Your task to perform on an android device: set the stopwatch Image 0: 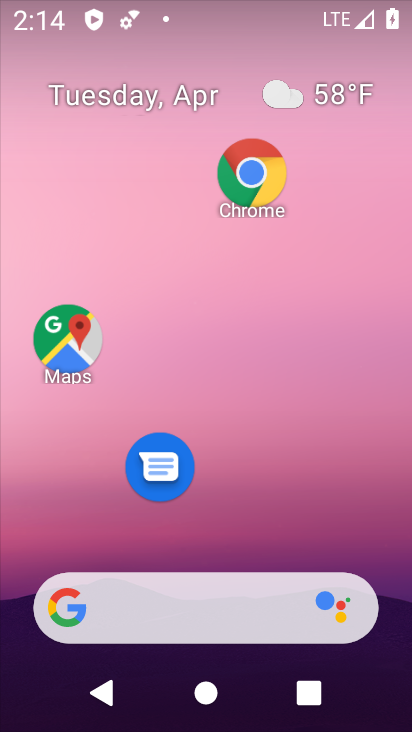
Step 0: drag from (327, 421) to (320, 60)
Your task to perform on an android device: set the stopwatch Image 1: 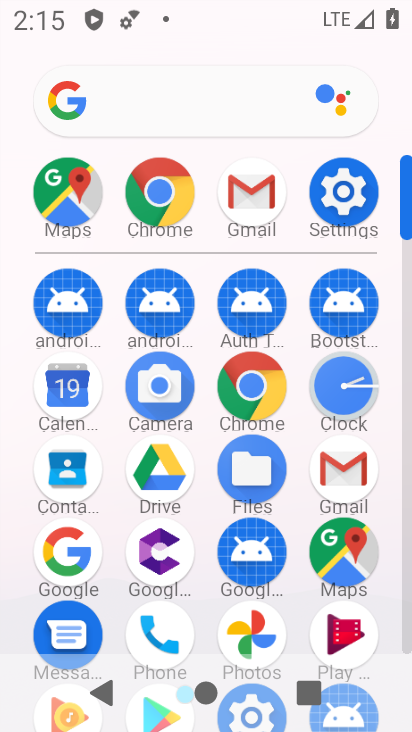
Step 1: click (326, 389)
Your task to perform on an android device: set the stopwatch Image 2: 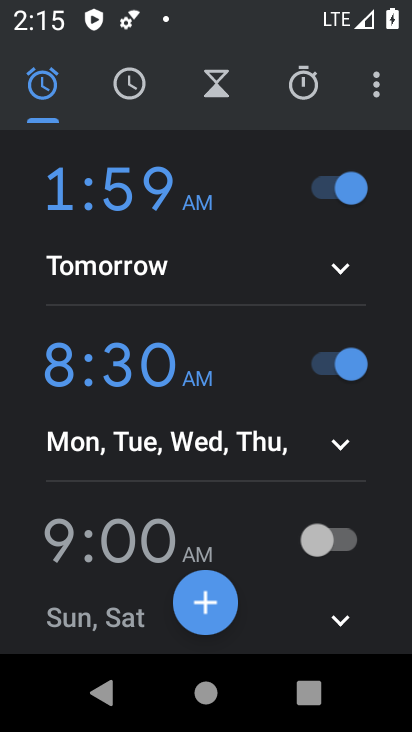
Step 2: click (302, 91)
Your task to perform on an android device: set the stopwatch Image 3: 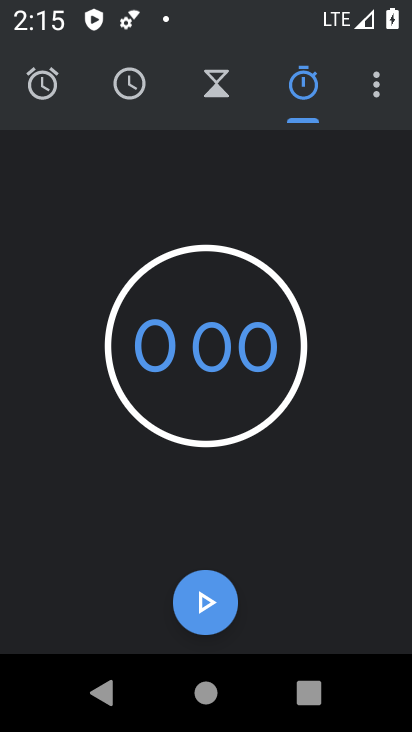
Step 3: click (224, 600)
Your task to perform on an android device: set the stopwatch Image 4: 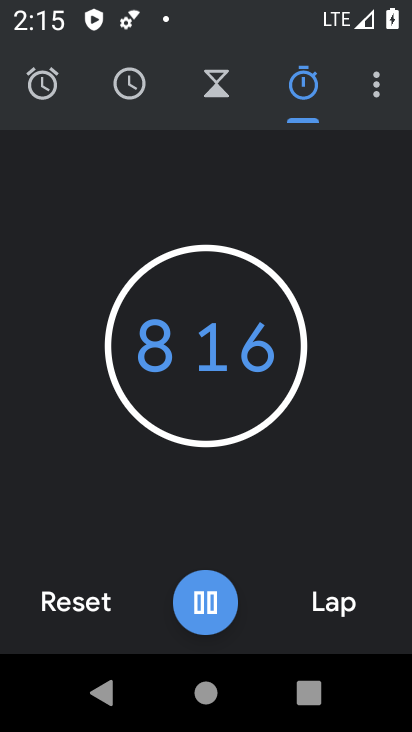
Step 4: click (218, 600)
Your task to perform on an android device: set the stopwatch Image 5: 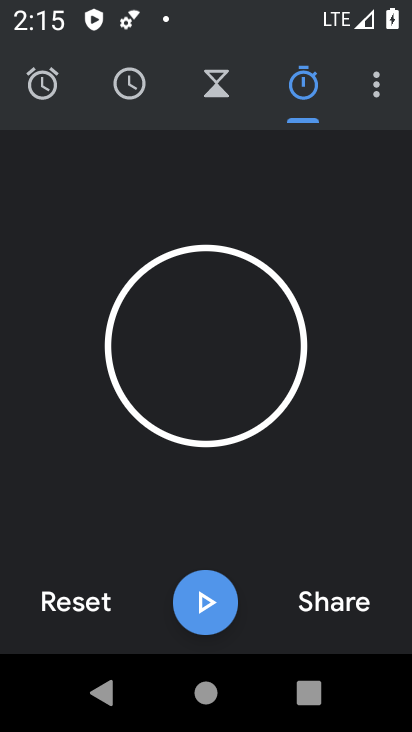
Step 5: task complete